Your task to perform on an android device: Open maps Image 0: 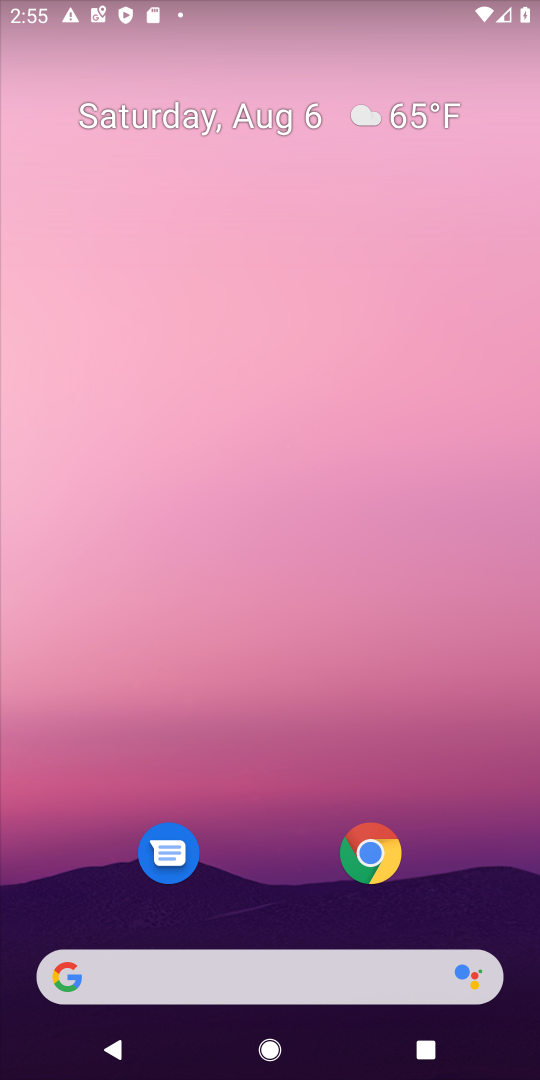
Step 0: drag from (170, 5) to (152, 507)
Your task to perform on an android device: Open maps Image 1: 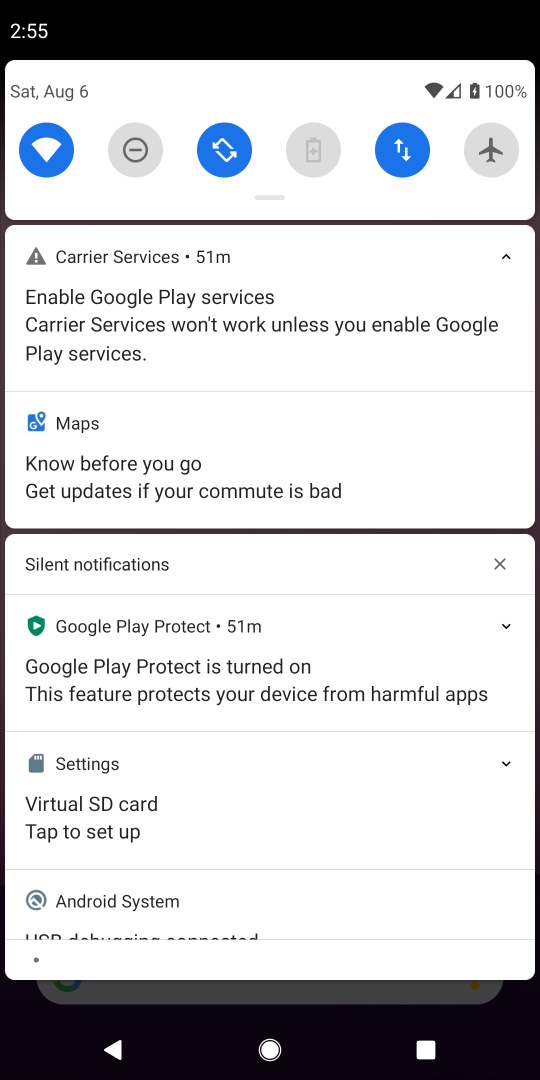
Step 1: drag from (222, 693) to (349, 21)
Your task to perform on an android device: Open maps Image 2: 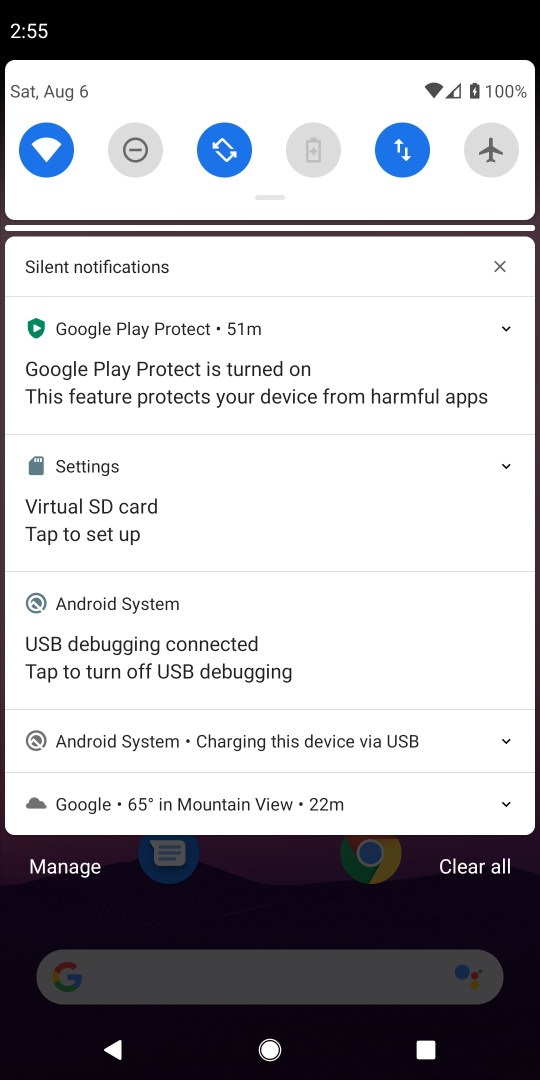
Step 2: drag from (216, 853) to (350, 171)
Your task to perform on an android device: Open maps Image 3: 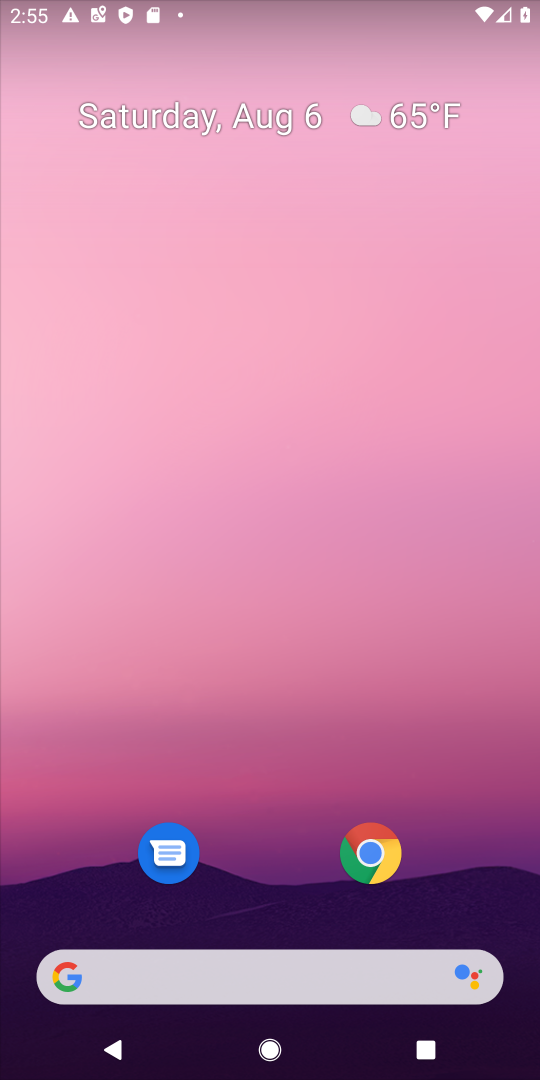
Step 3: drag from (260, 799) to (390, 217)
Your task to perform on an android device: Open maps Image 4: 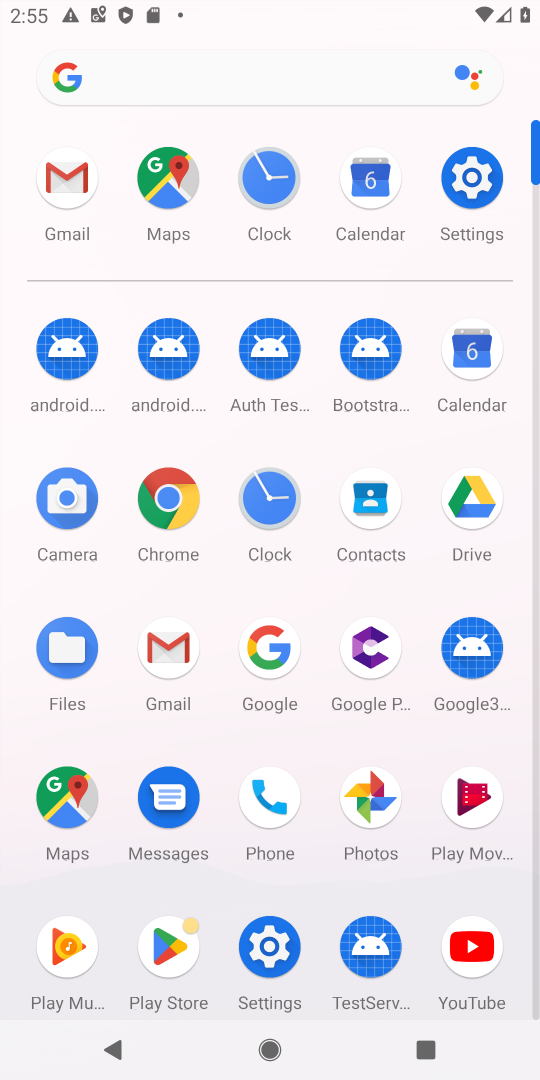
Step 4: click (168, 180)
Your task to perform on an android device: Open maps Image 5: 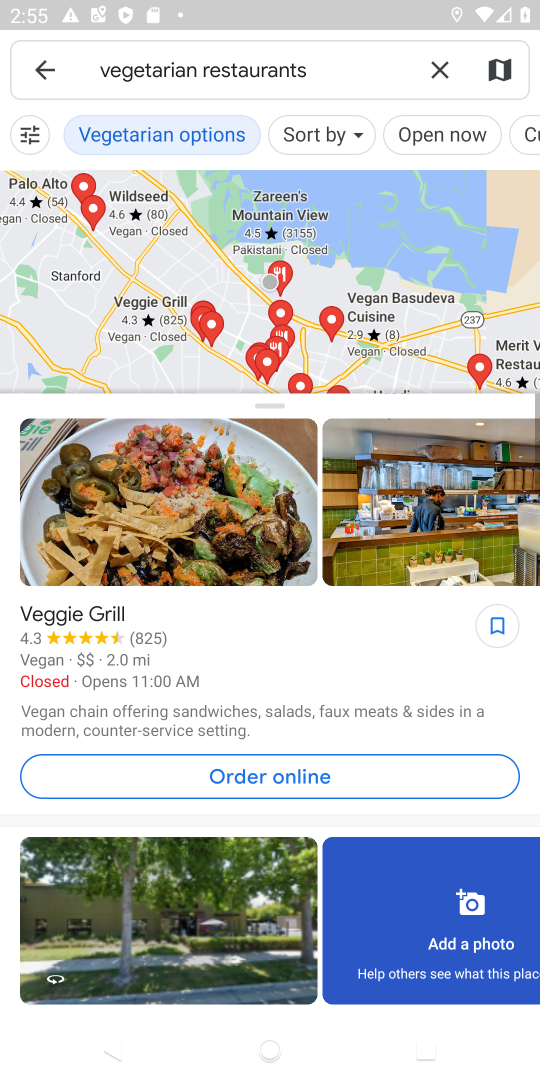
Step 5: task complete